Your task to perform on an android device: Open calendar and show me the fourth week of next month Image 0: 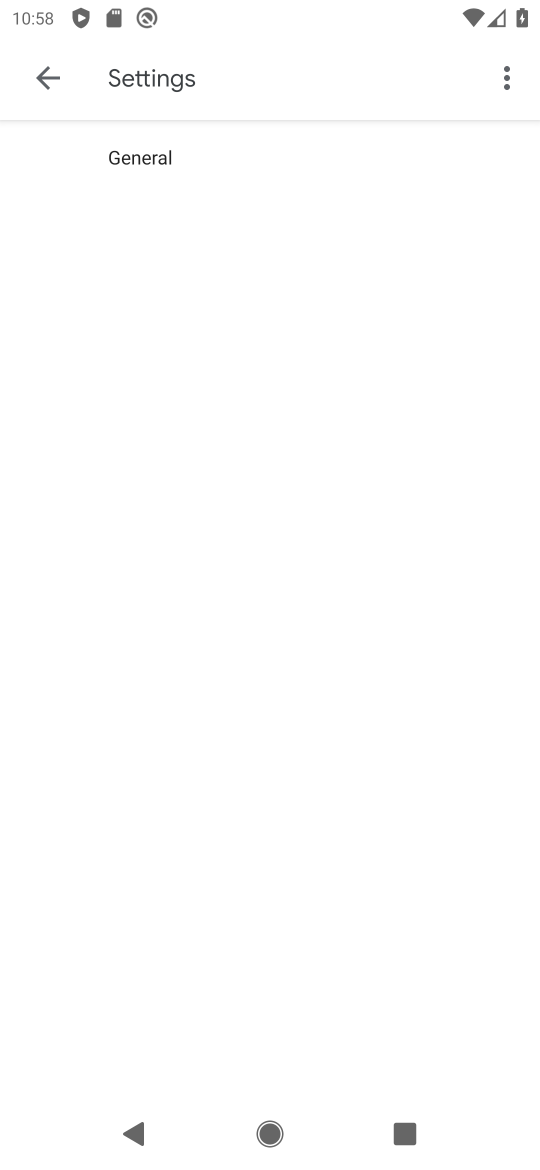
Step 0: press home button
Your task to perform on an android device: Open calendar and show me the fourth week of next month Image 1: 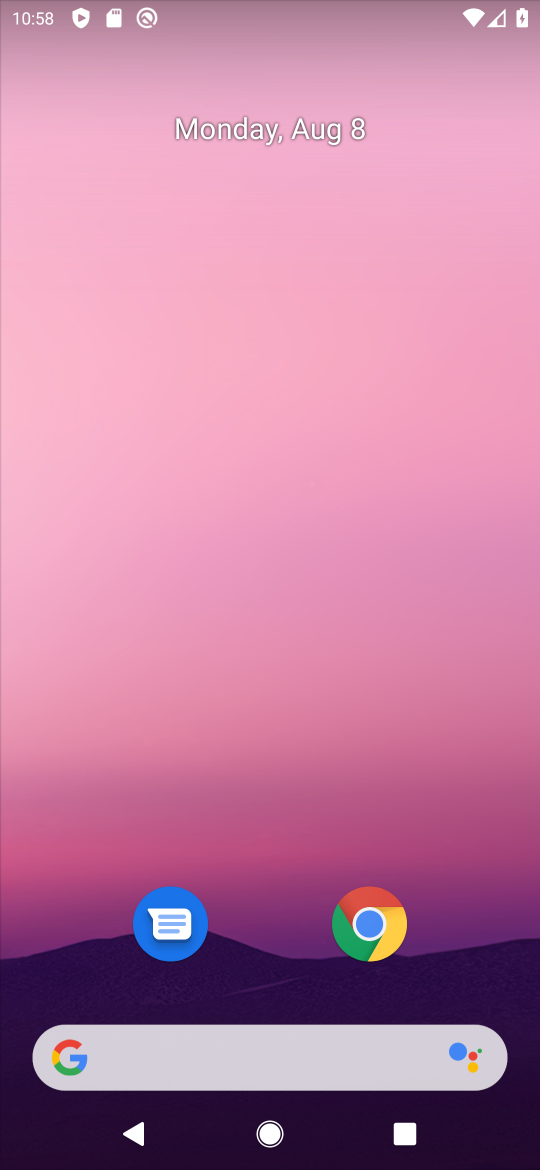
Step 1: drag from (304, 1001) to (277, 67)
Your task to perform on an android device: Open calendar and show me the fourth week of next month Image 2: 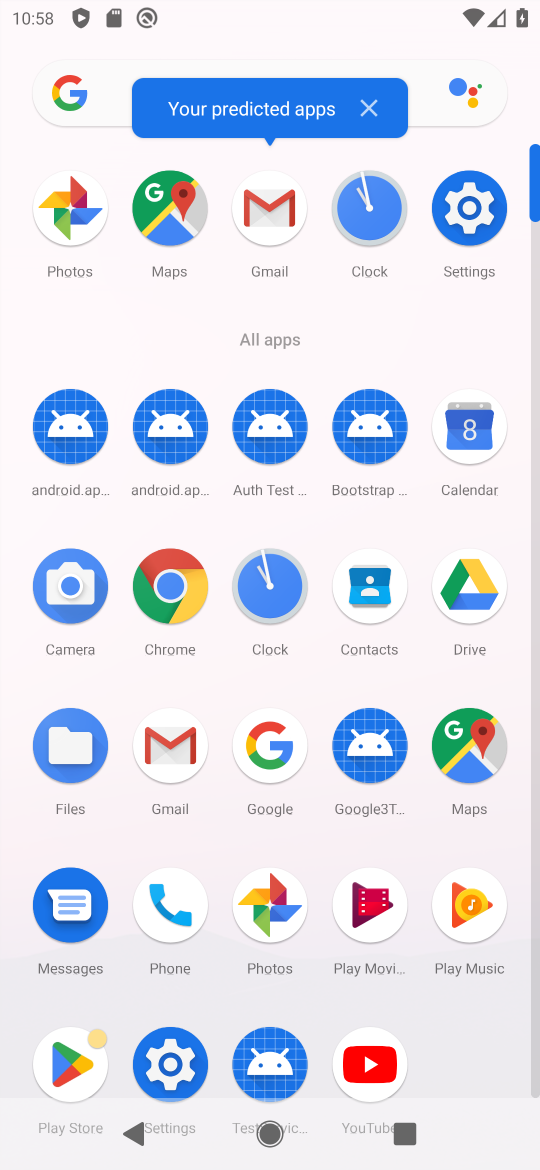
Step 2: click (464, 405)
Your task to perform on an android device: Open calendar and show me the fourth week of next month Image 3: 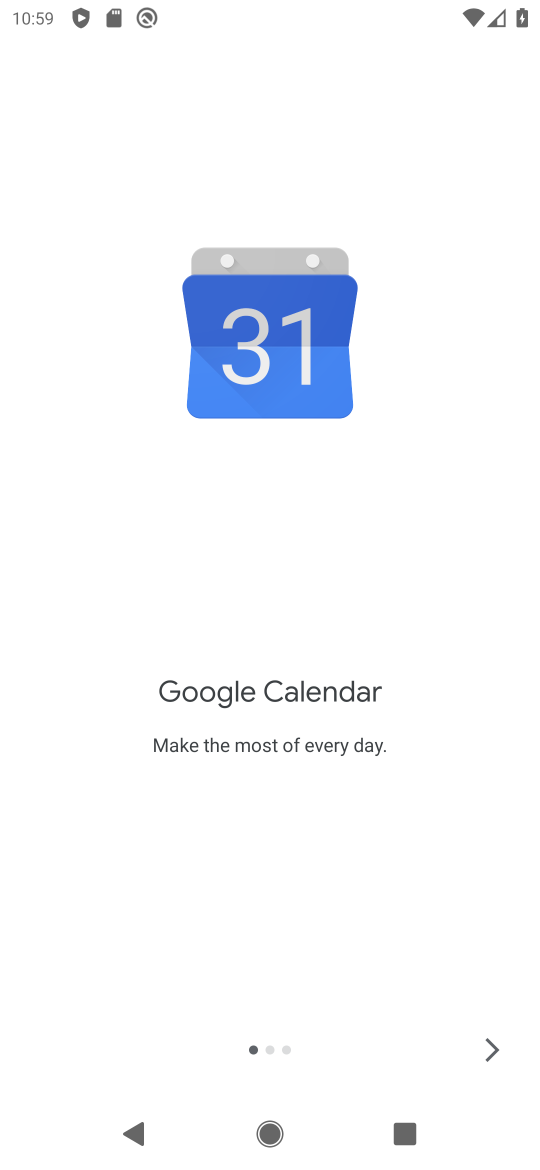
Step 3: click (498, 1039)
Your task to perform on an android device: Open calendar and show me the fourth week of next month Image 4: 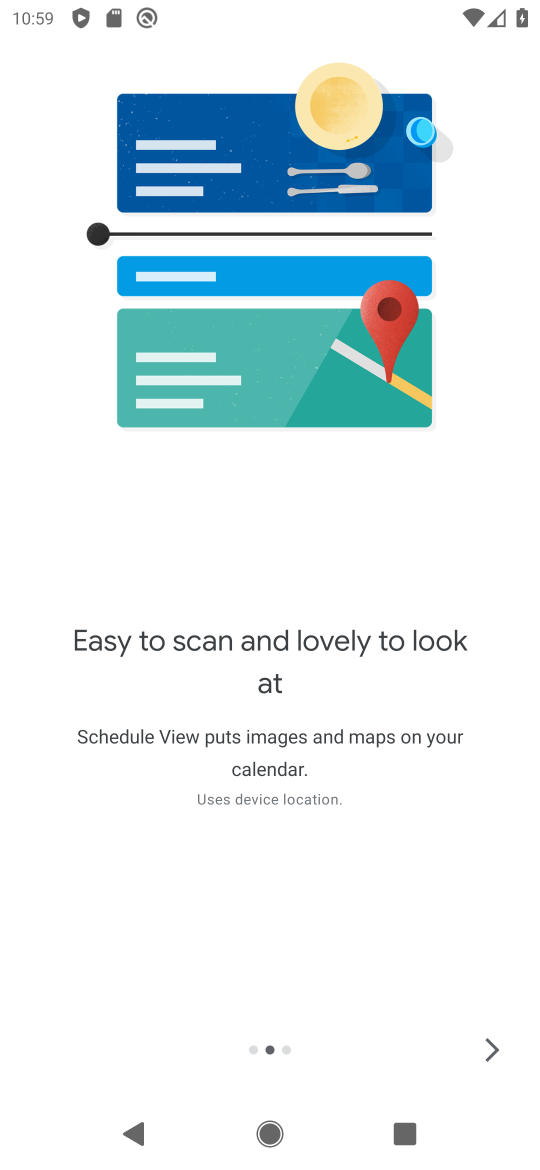
Step 4: click (498, 1039)
Your task to perform on an android device: Open calendar and show me the fourth week of next month Image 5: 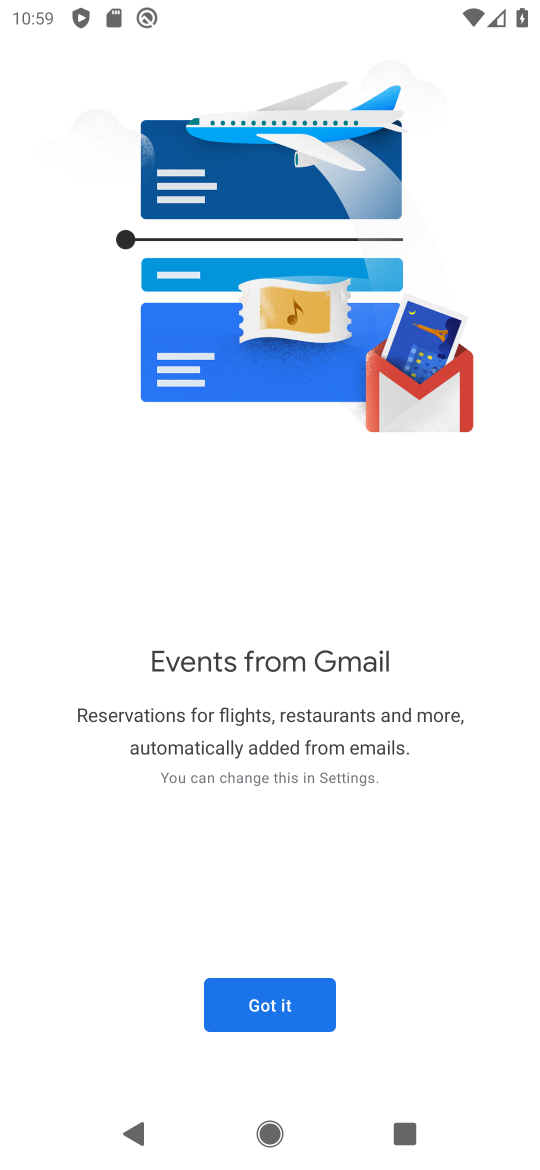
Step 5: click (264, 1010)
Your task to perform on an android device: Open calendar and show me the fourth week of next month Image 6: 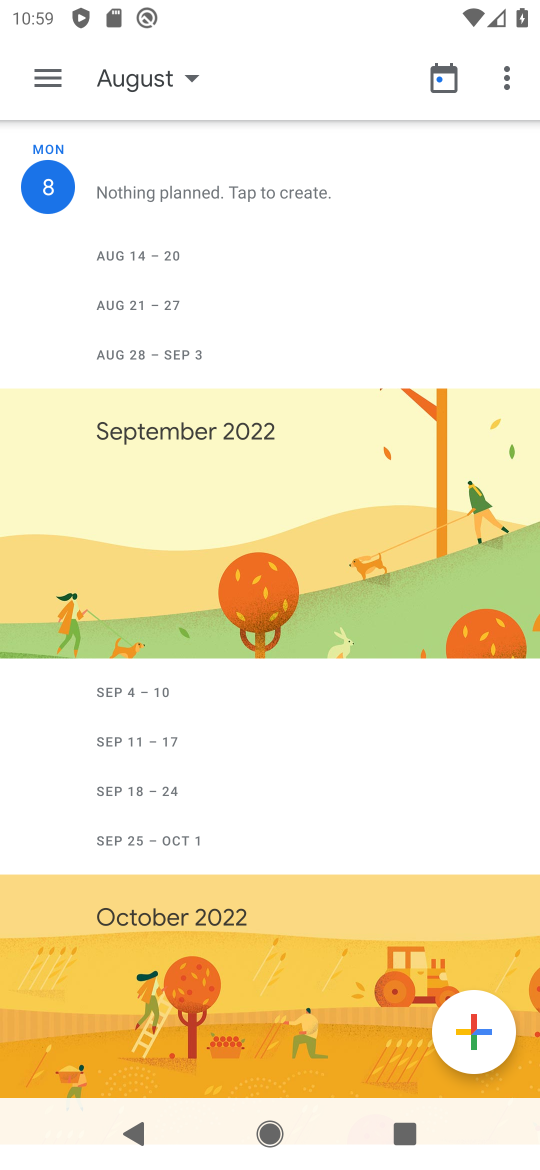
Step 6: click (56, 66)
Your task to perform on an android device: Open calendar and show me the fourth week of next month Image 7: 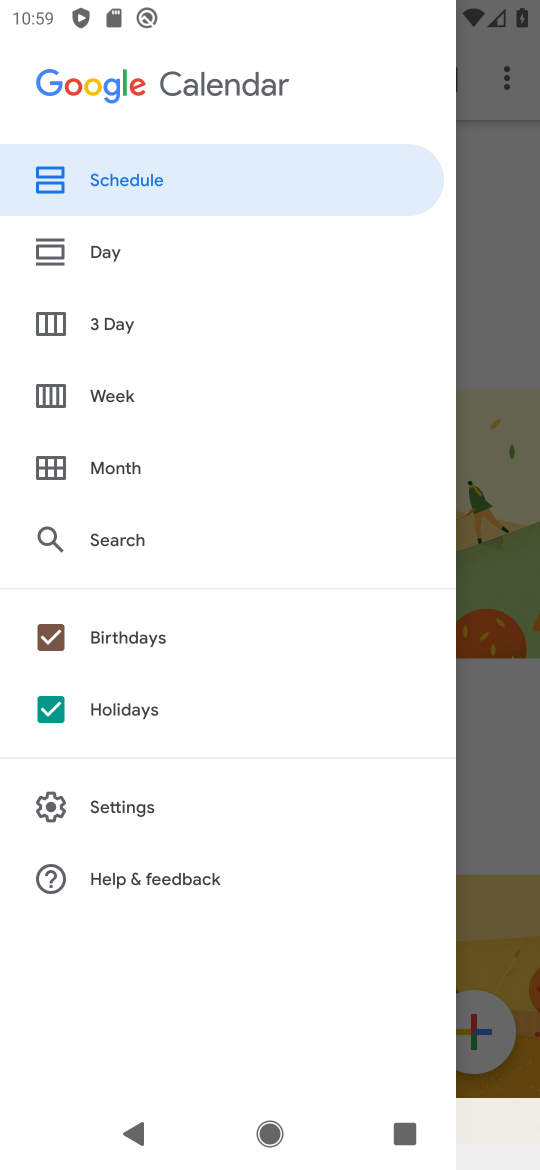
Step 7: click (90, 388)
Your task to perform on an android device: Open calendar and show me the fourth week of next month Image 8: 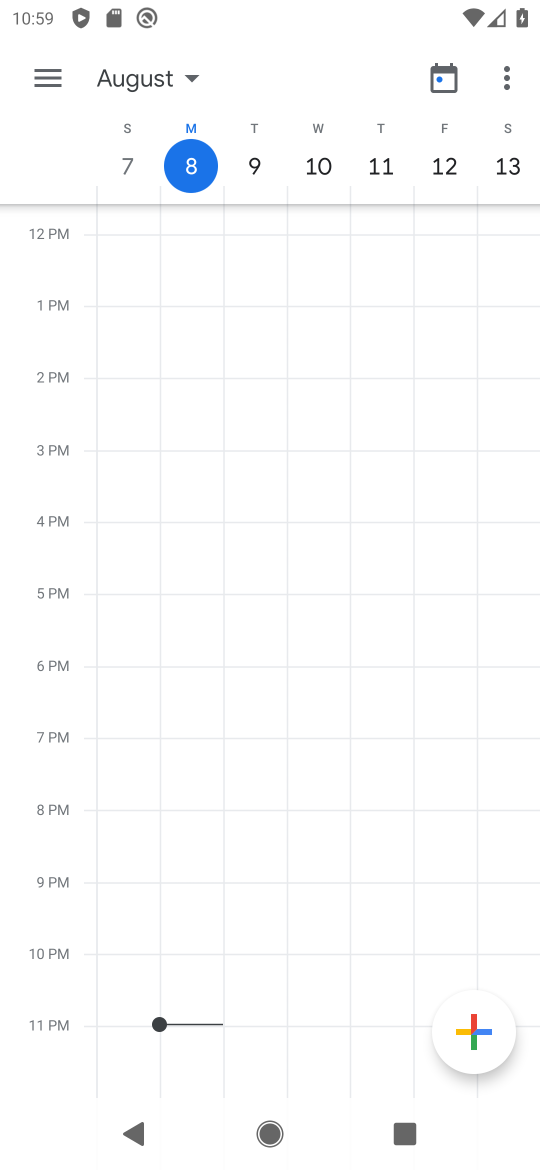
Step 8: task complete